Your task to perform on an android device: Toggle the flashlight Image 0: 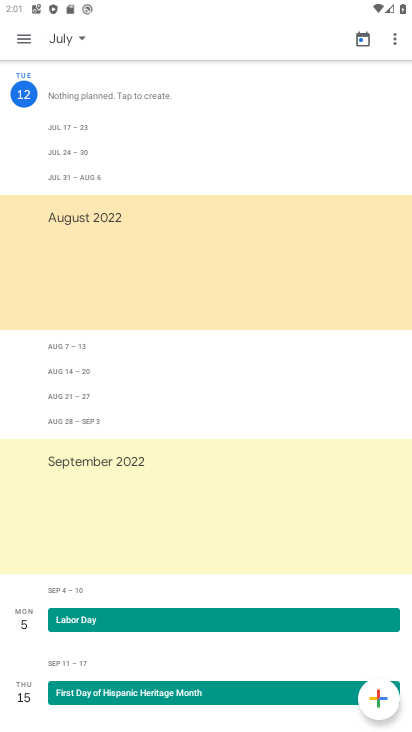
Step 0: press home button
Your task to perform on an android device: Toggle the flashlight Image 1: 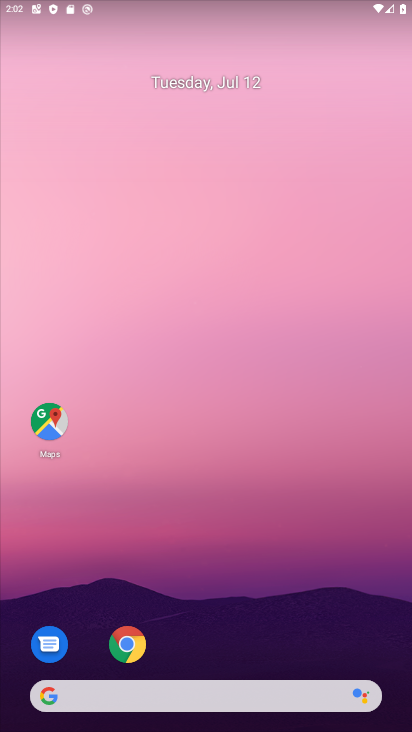
Step 1: drag from (193, 669) to (173, 104)
Your task to perform on an android device: Toggle the flashlight Image 2: 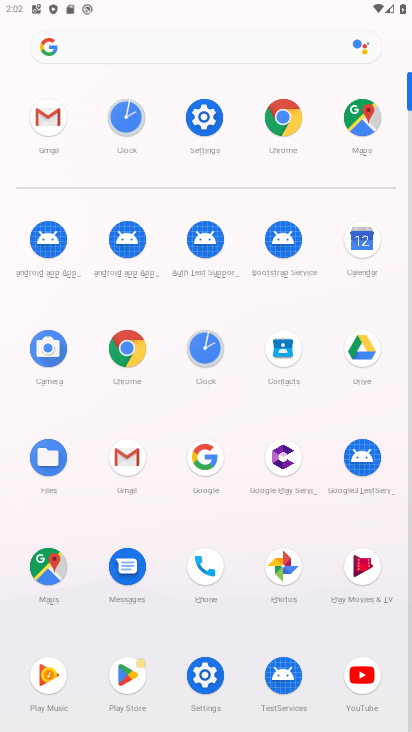
Step 2: click (203, 672)
Your task to perform on an android device: Toggle the flashlight Image 3: 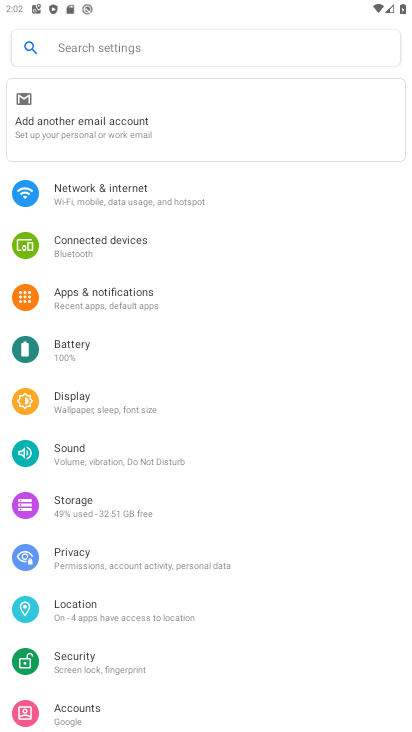
Step 3: task complete